Your task to perform on an android device: Find coffee shops on Maps Image 0: 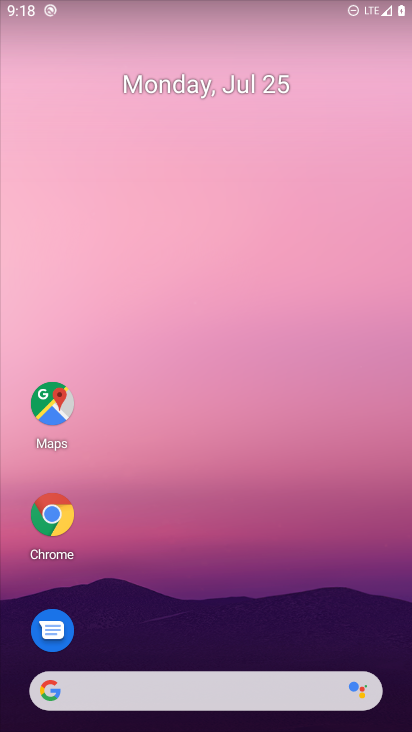
Step 0: click (47, 418)
Your task to perform on an android device: Find coffee shops on Maps Image 1: 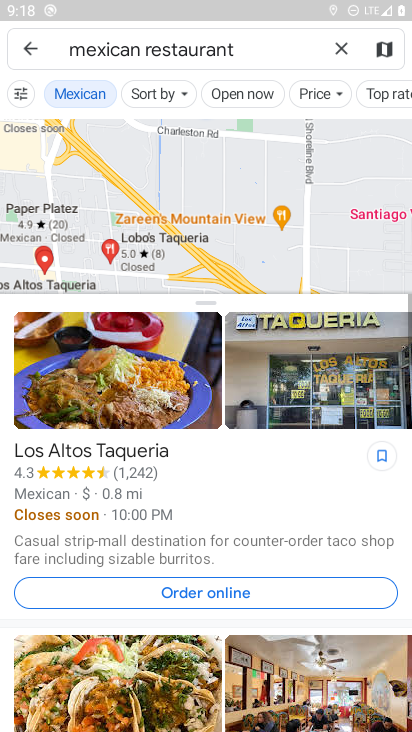
Step 1: click (25, 42)
Your task to perform on an android device: Find coffee shops on Maps Image 2: 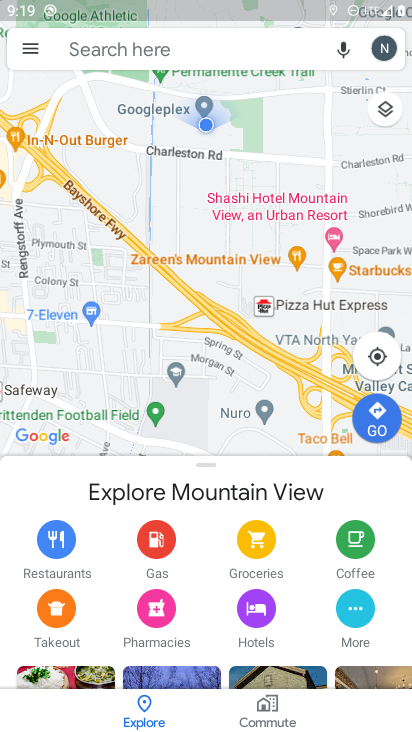
Step 2: click (95, 46)
Your task to perform on an android device: Find coffee shops on Maps Image 3: 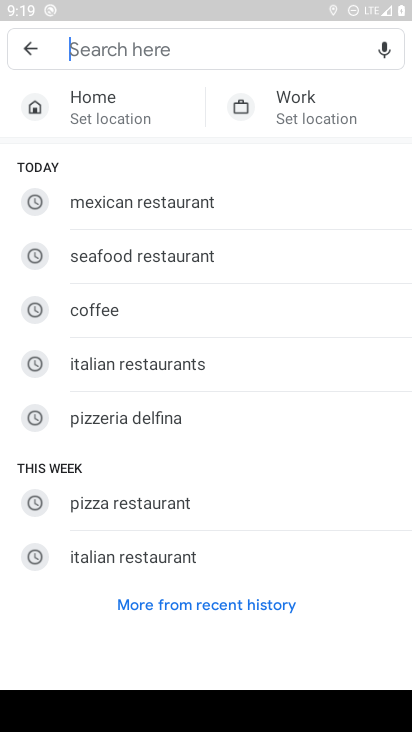
Step 3: type "coffee shops"
Your task to perform on an android device: Find coffee shops on Maps Image 4: 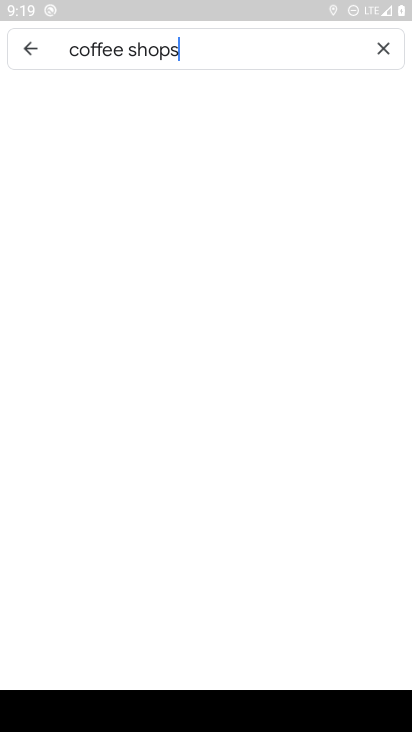
Step 4: type ""
Your task to perform on an android device: Find coffee shops on Maps Image 5: 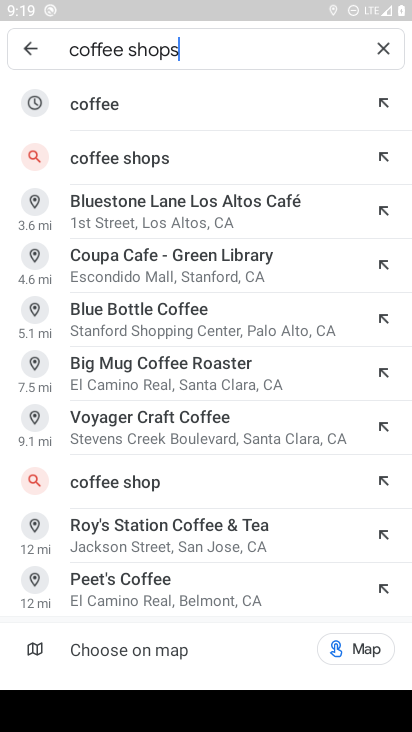
Step 5: click (181, 156)
Your task to perform on an android device: Find coffee shops on Maps Image 6: 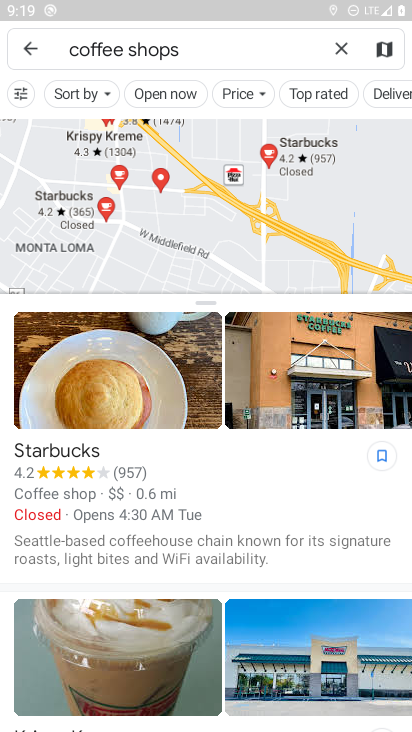
Step 6: task complete